Your task to perform on an android device: Go to sound settings Image 0: 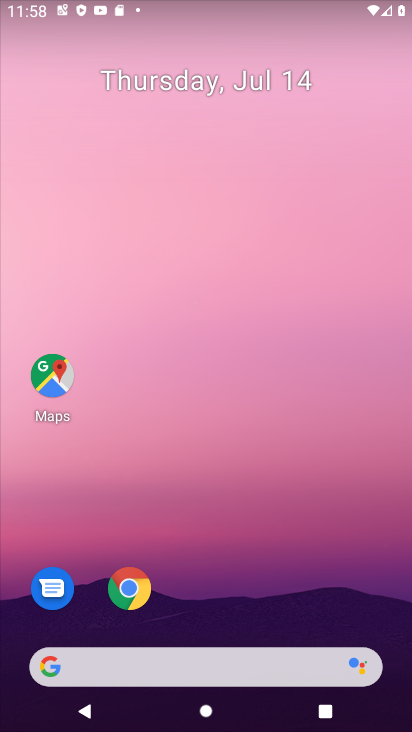
Step 0: drag from (214, 610) to (310, 10)
Your task to perform on an android device: Go to sound settings Image 1: 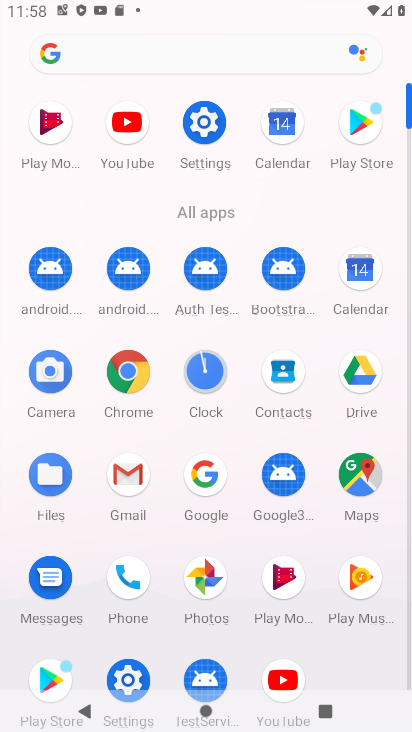
Step 1: click (198, 119)
Your task to perform on an android device: Go to sound settings Image 2: 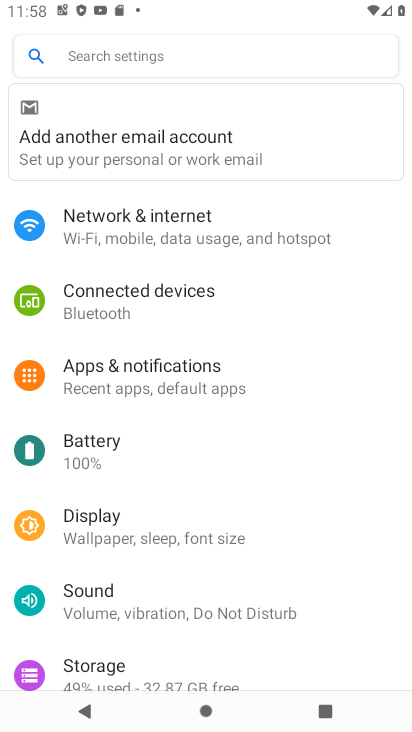
Step 2: click (111, 604)
Your task to perform on an android device: Go to sound settings Image 3: 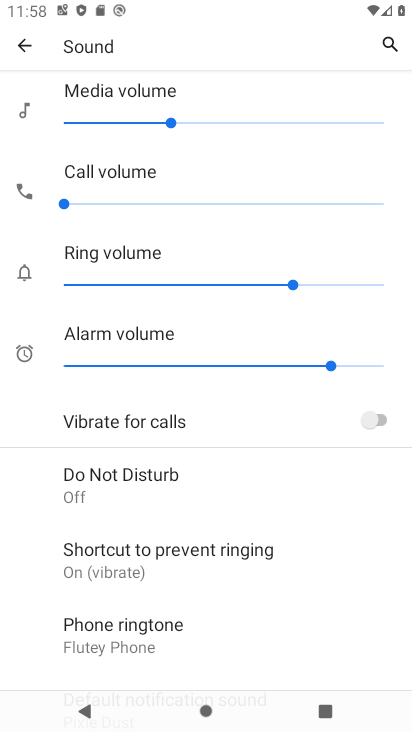
Step 3: task complete